Your task to perform on an android device: change the clock display to analog Image 0: 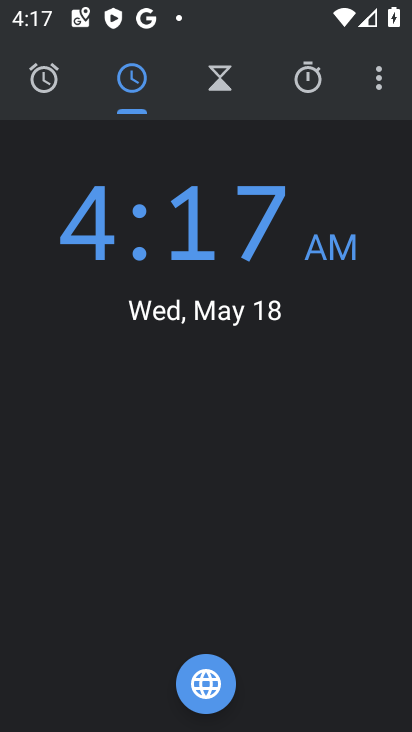
Step 0: click (376, 74)
Your task to perform on an android device: change the clock display to analog Image 1: 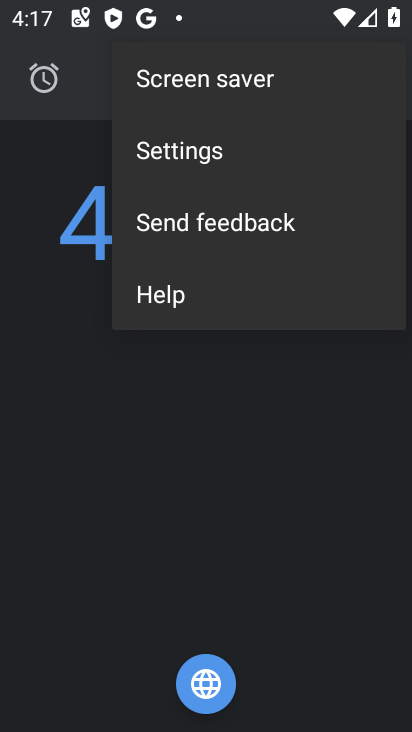
Step 1: click (247, 154)
Your task to perform on an android device: change the clock display to analog Image 2: 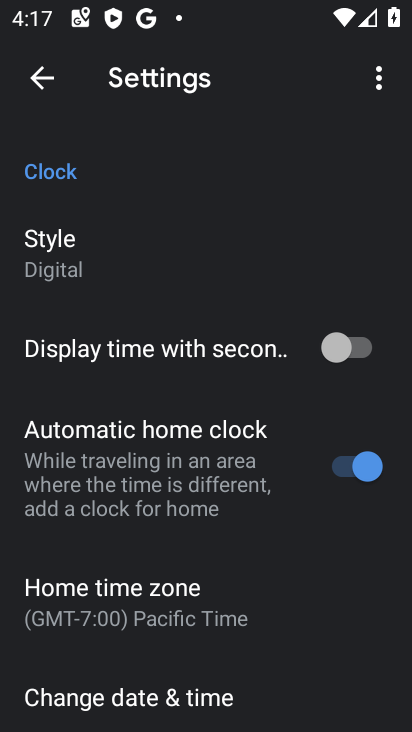
Step 2: click (117, 260)
Your task to perform on an android device: change the clock display to analog Image 3: 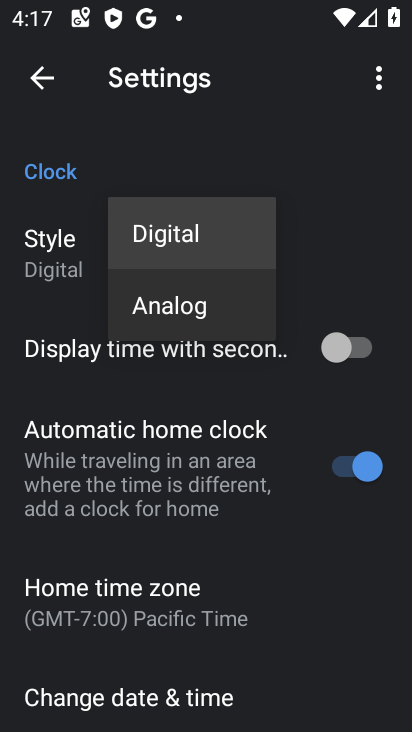
Step 3: click (167, 318)
Your task to perform on an android device: change the clock display to analog Image 4: 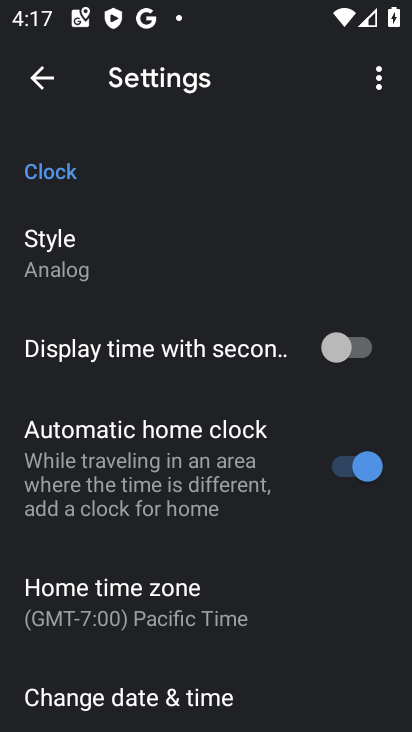
Step 4: task complete